Your task to perform on an android device: toggle sleep mode Image 0: 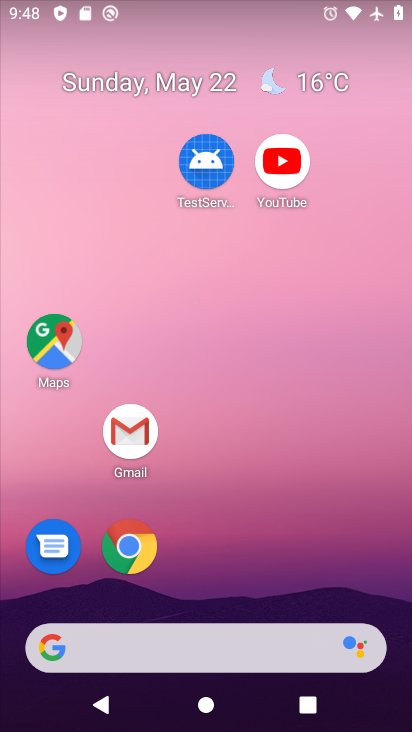
Step 0: drag from (269, 701) to (187, 137)
Your task to perform on an android device: toggle sleep mode Image 1: 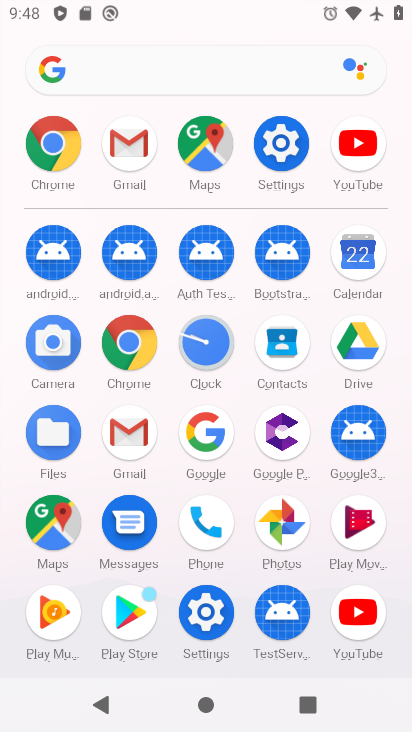
Step 1: click (211, 609)
Your task to perform on an android device: toggle sleep mode Image 2: 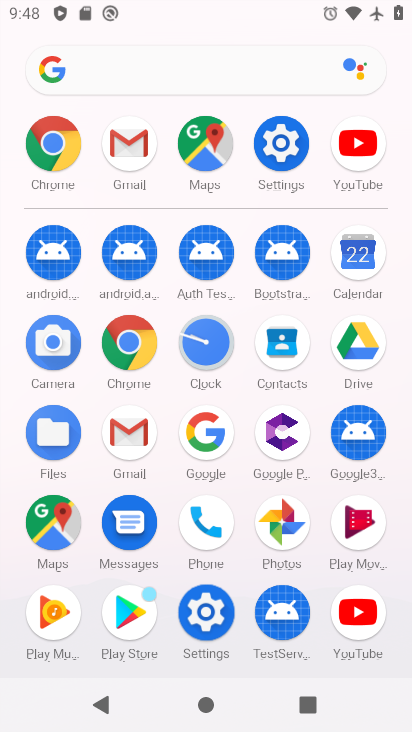
Step 2: click (211, 609)
Your task to perform on an android device: toggle sleep mode Image 3: 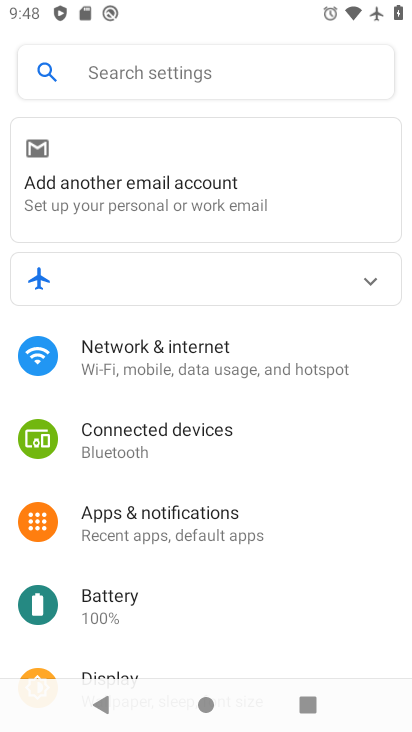
Step 3: drag from (167, 572) to (161, 304)
Your task to perform on an android device: toggle sleep mode Image 4: 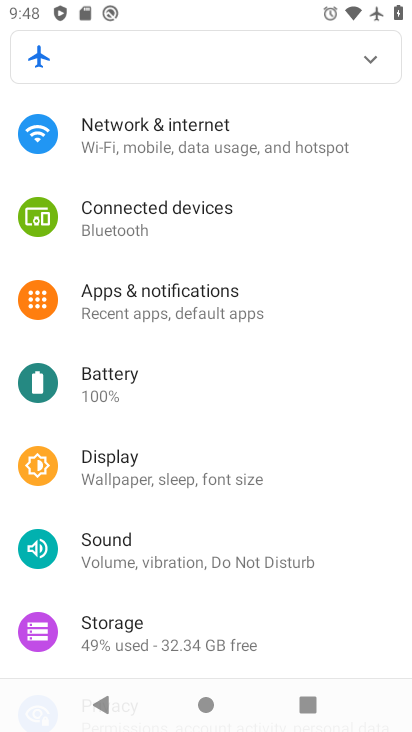
Step 4: drag from (179, 536) to (175, 268)
Your task to perform on an android device: toggle sleep mode Image 5: 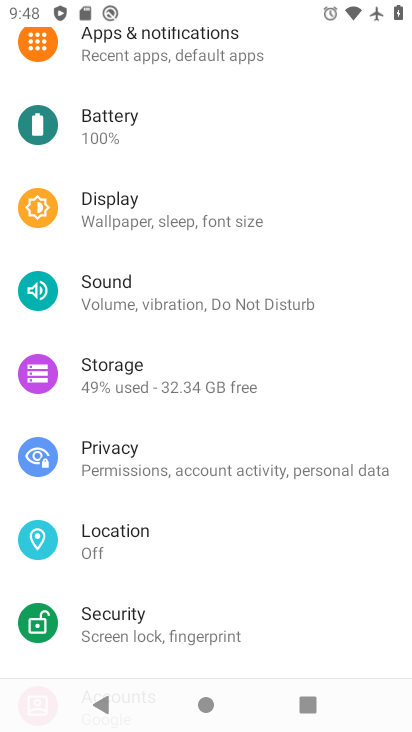
Step 5: drag from (216, 516) to (215, 202)
Your task to perform on an android device: toggle sleep mode Image 6: 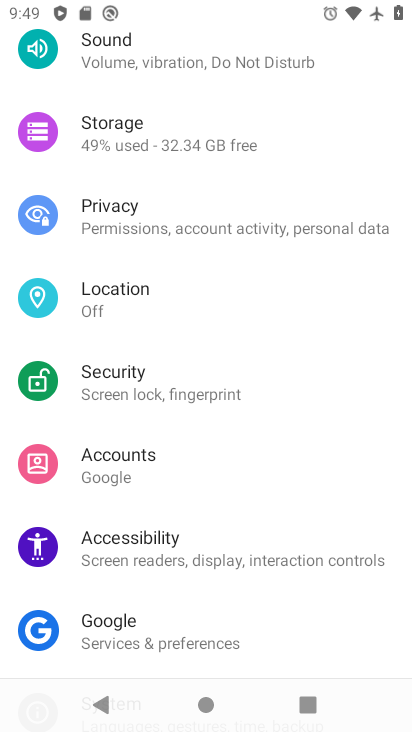
Step 6: drag from (132, 212) to (222, 544)
Your task to perform on an android device: toggle sleep mode Image 7: 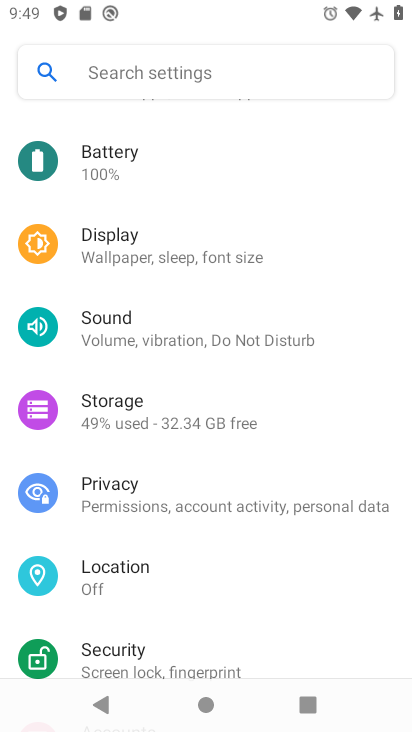
Step 7: click (108, 255)
Your task to perform on an android device: toggle sleep mode Image 8: 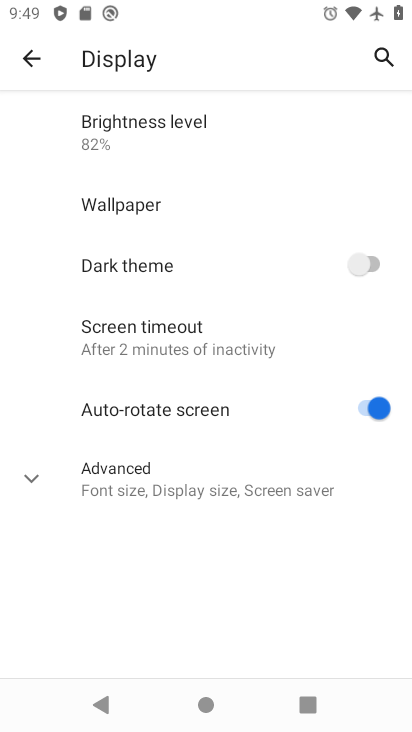
Step 8: click (147, 323)
Your task to perform on an android device: toggle sleep mode Image 9: 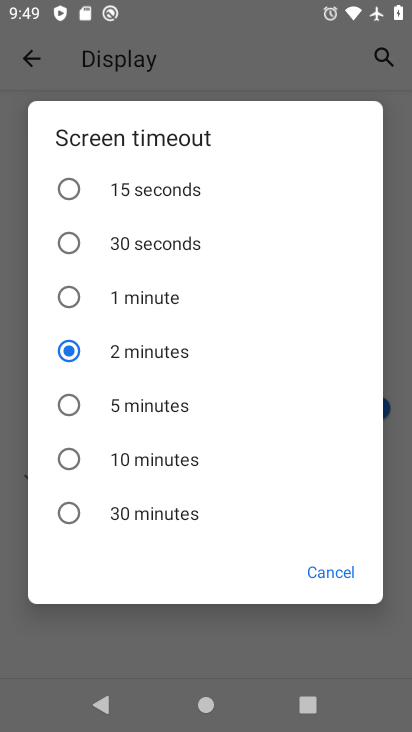
Step 9: click (64, 290)
Your task to perform on an android device: toggle sleep mode Image 10: 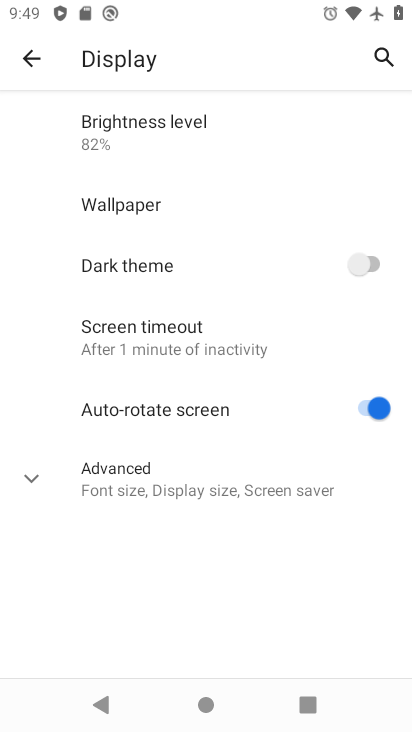
Step 10: task complete